Your task to perform on an android device: Go to eBay Image 0: 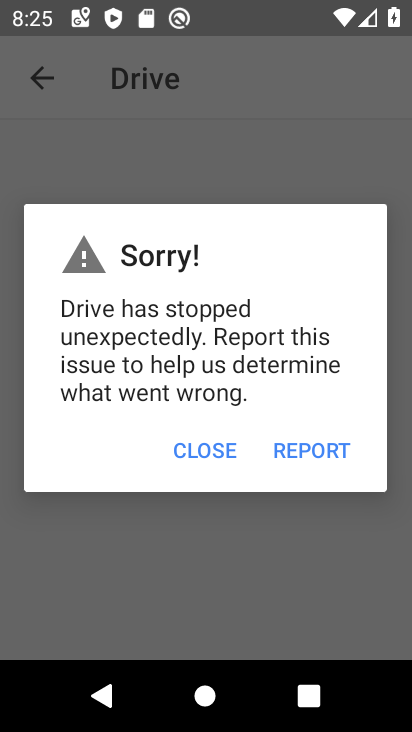
Step 0: press home button
Your task to perform on an android device: Go to eBay Image 1: 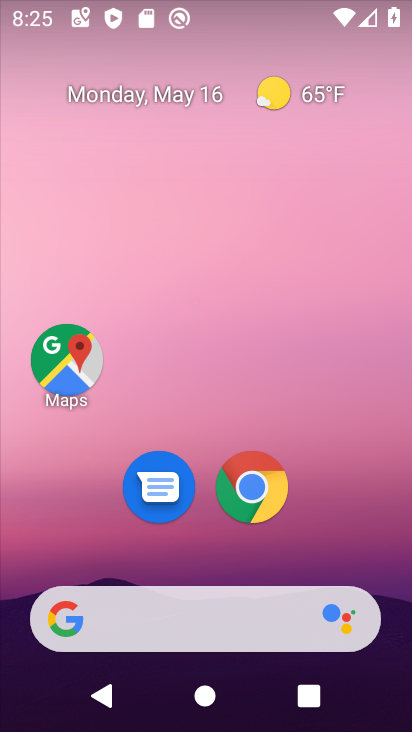
Step 1: drag from (354, 535) to (344, 126)
Your task to perform on an android device: Go to eBay Image 2: 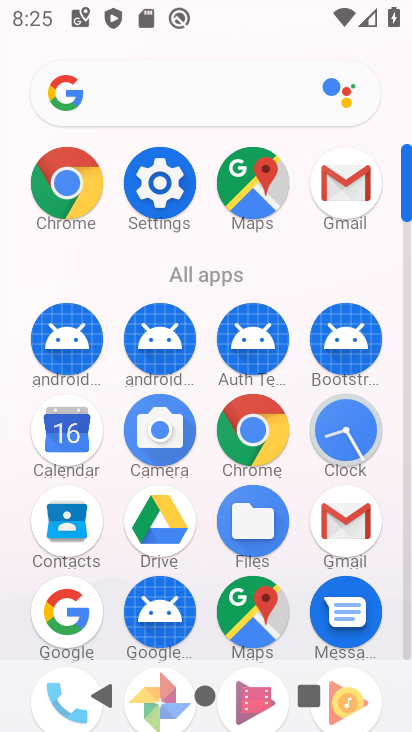
Step 2: click (271, 446)
Your task to perform on an android device: Go to eBay Image 3: 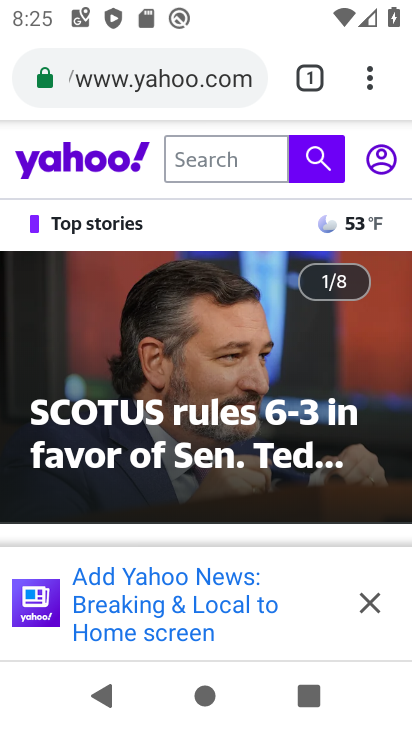
Step 3: click (222, 90)
Your task to perform on an android device: Go to eBay Image 4: 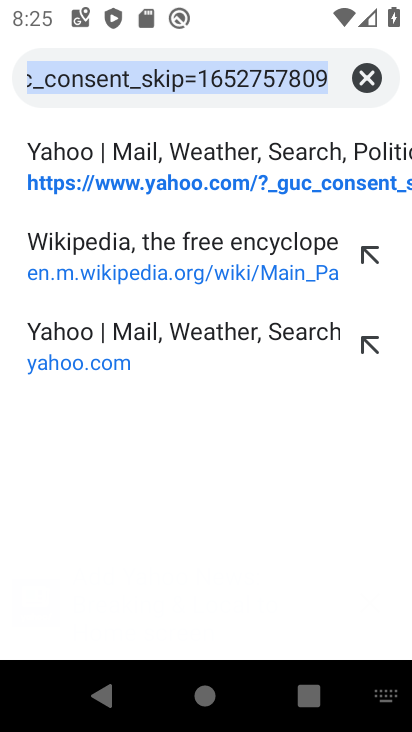
Step 4: click (372, 88)
Your task to perform on an android device: Go to eBay Image 5: 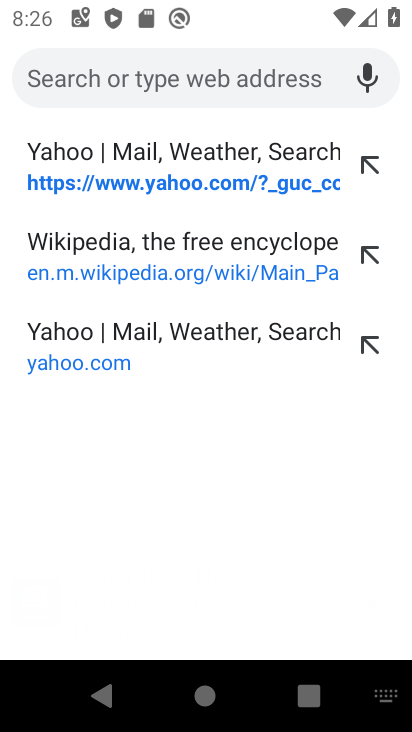
Step 5: type "ebay"
Your task to perform on an android device: Go to eBay Image 6: 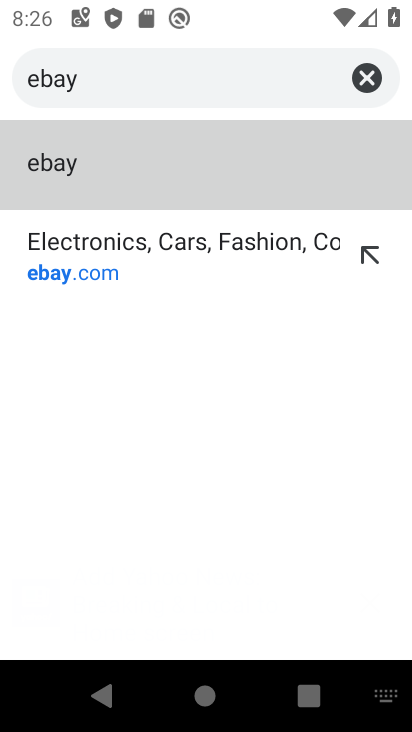
Step 6: click (97, 193)
Your task to perform on an android device: Go to eBay Image 7: 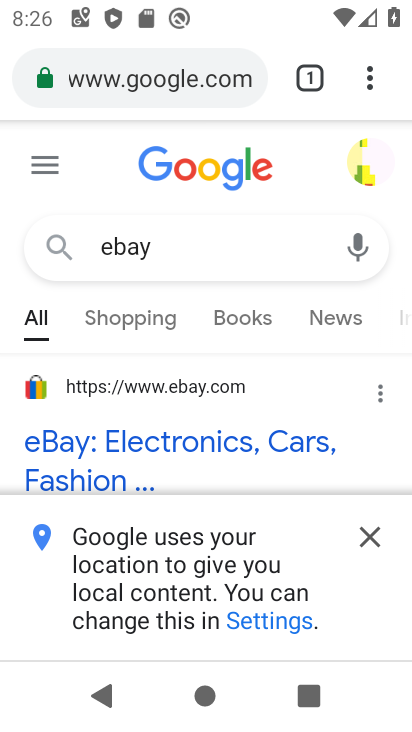
Step 7: task complete